Your task to perform on an android device: What's the weather going to be tomorrow? Image 0: 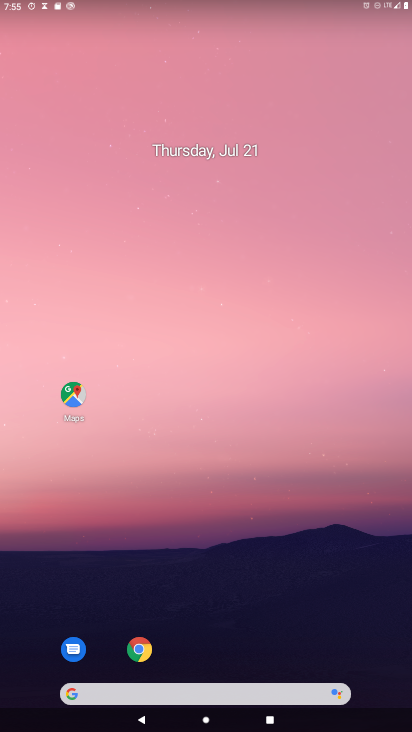
Step 0: drag from (370, 643) to (198, 51)
Your task to perform on an android device: What's the weather going to be tomorrow? Image 1: 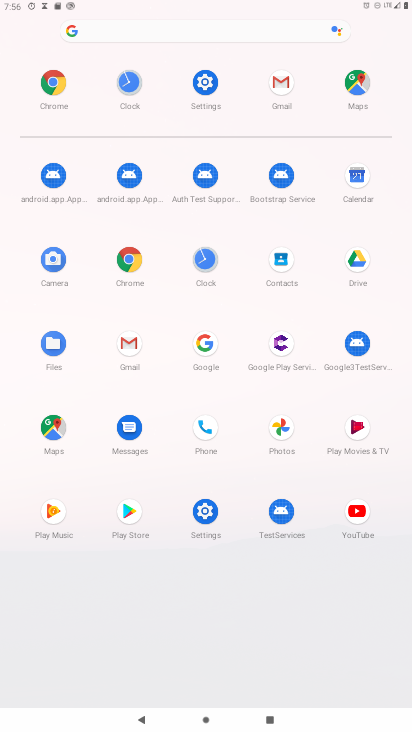
Step 1: click (206, 352)
Your task to perform on an android device: What's the weather going to be tomorrow? Image 2: 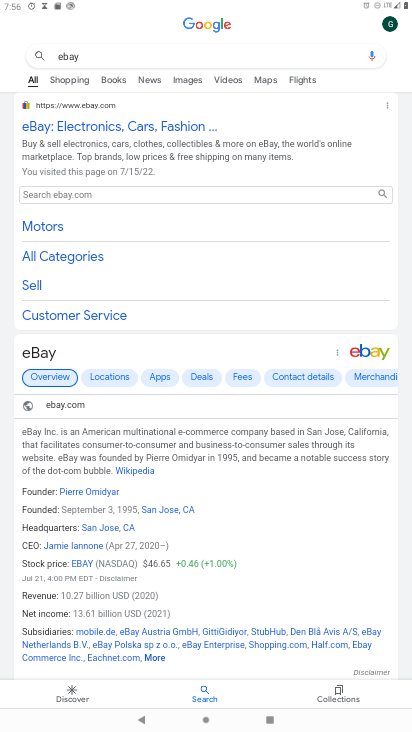
Step 2: press back button
Your task to perform on an android device: What's the weather going to be tomorrow? Image 3: 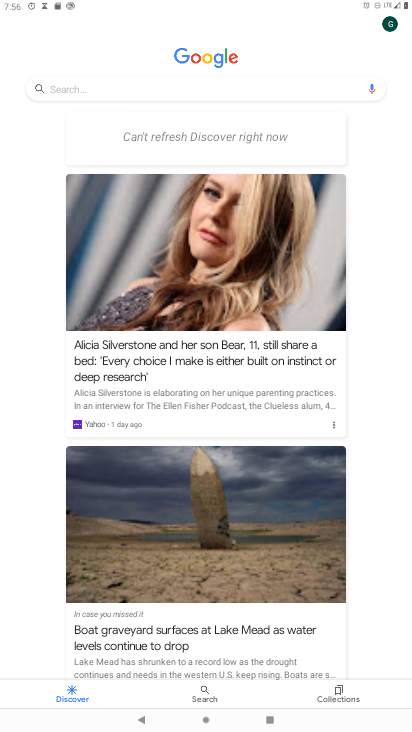
Step 3: click (93, 85)
Your task to perform on an android device: What's the weather going to be tomorrow? Image 4: 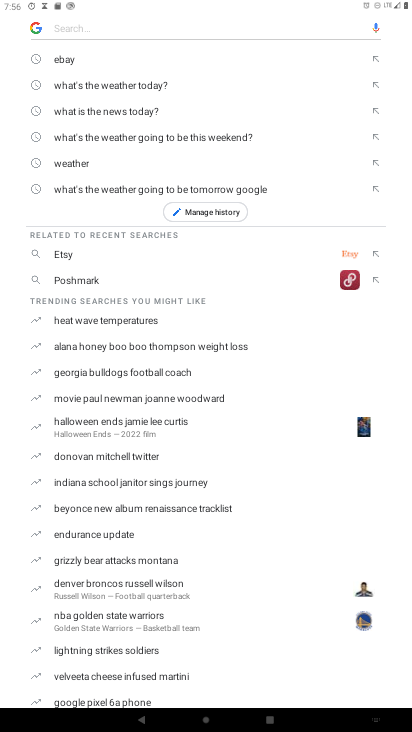
Step 4: click (126, 188)
Your task to perform on an android device: What's the weather going to be tomorrow? Image 5: 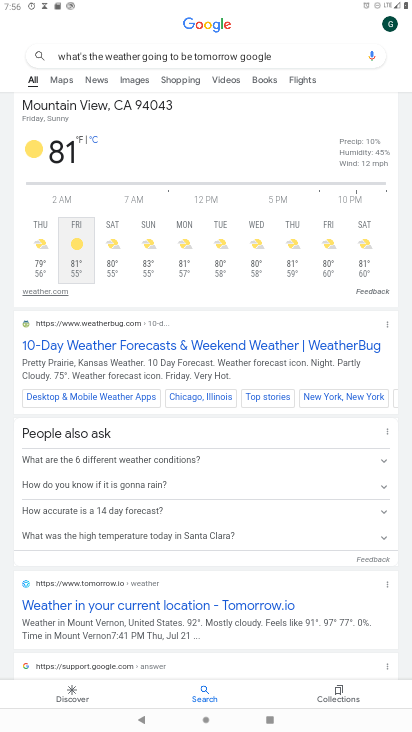
Step 5: task complete